Your task to perform on an android device: turn off wifi Image 0: 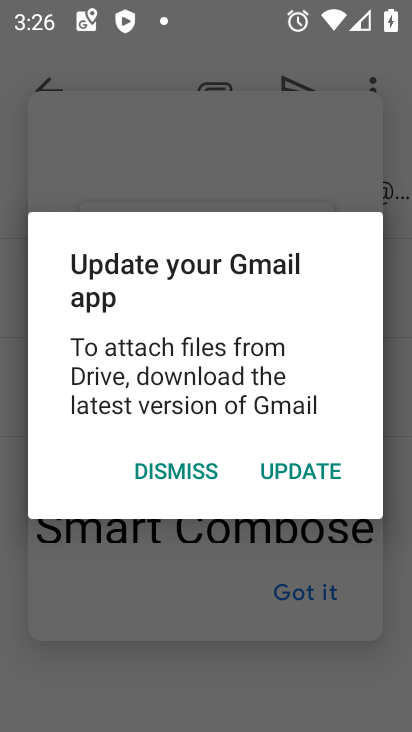
Step 0: click (194, 460)
Your task to perform on an android device: turn off wifi Image 1: 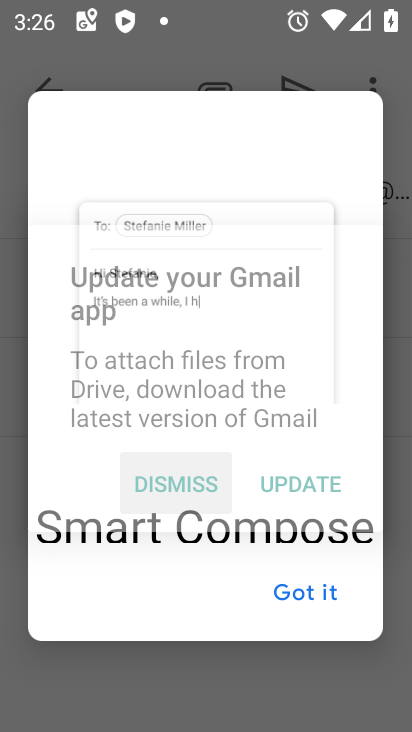
Step 1: click (194, 460)
Your task to perform on an android device: turn off wifi Image 2: 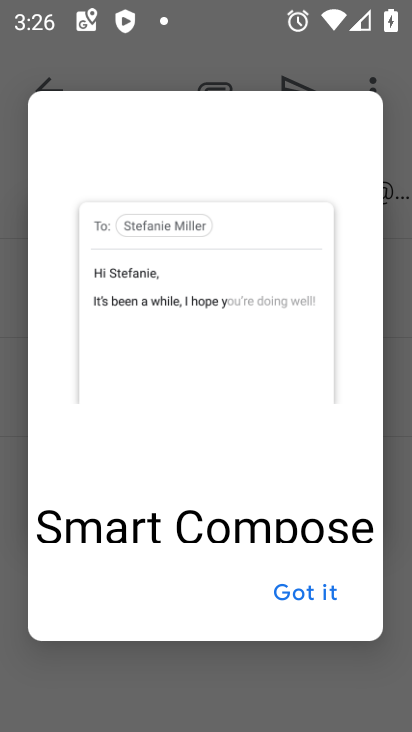
Step 2: click (294, 596)
Your task to perform on an android device: turn off wifi Image 3: 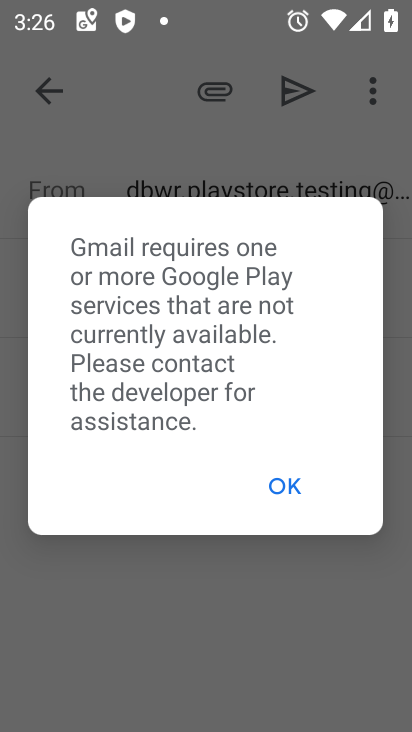
Step 3: click (294, 595)
Your task to perform on an android device: turn off wifi Image 4: 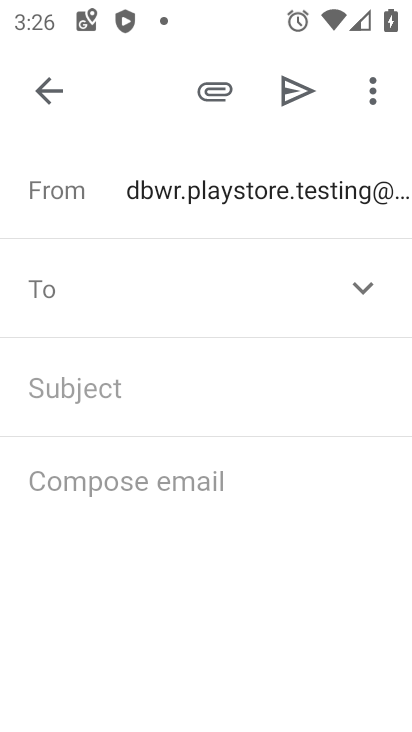
Step 4: click (57, 79)
Your task to perform on an android device: turn off wifi Image 5: 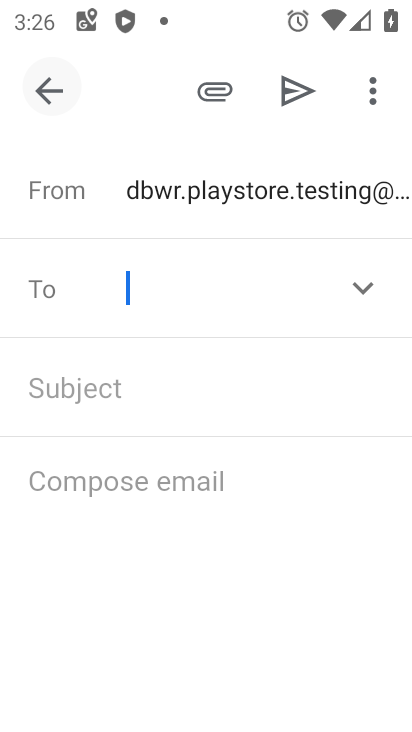
Step 5: click (57, 79)
Your task to perform on an android device: turn off wifi Image 6: 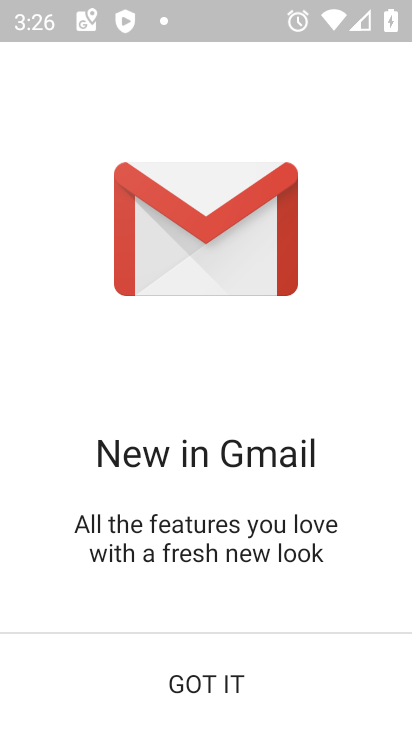
Step 6: press back button
Your task to perform on an android device: turn off wifi Image 7: 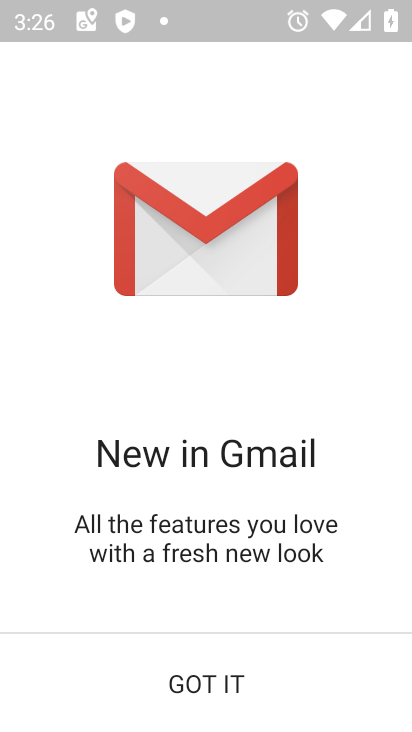
Step 7: press back button
Your task to perform on an android device: turn off wifi Image 8: 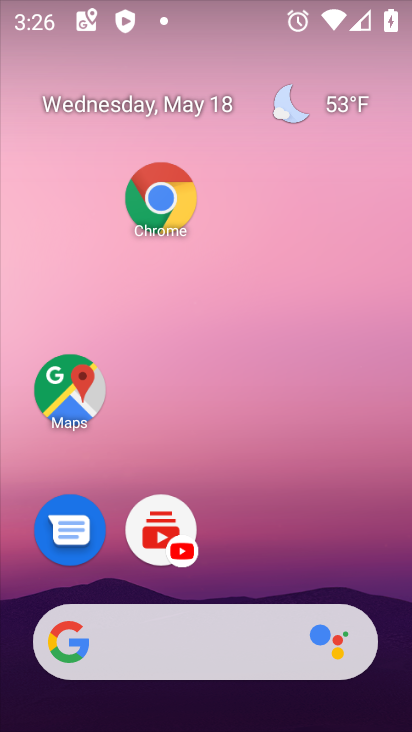
Step 8: press home button
Your task to perform on an android device: turn off wifi Image 9: 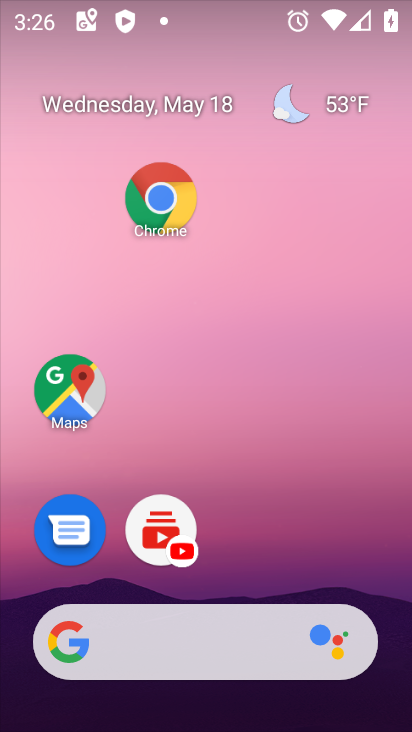
Step 9: drag from (304, 589) to (218, 21)
Your task to perform on an android device: turn off wifi Image 10: 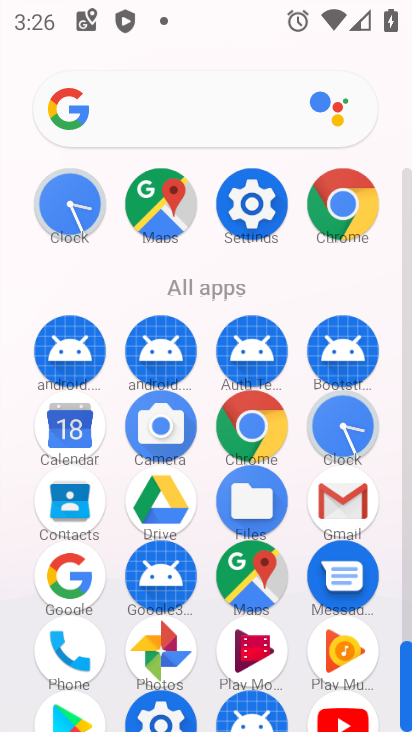
Step 10: click (258, 217)
Your task to perform on an android device: turn off wifi Image 11: 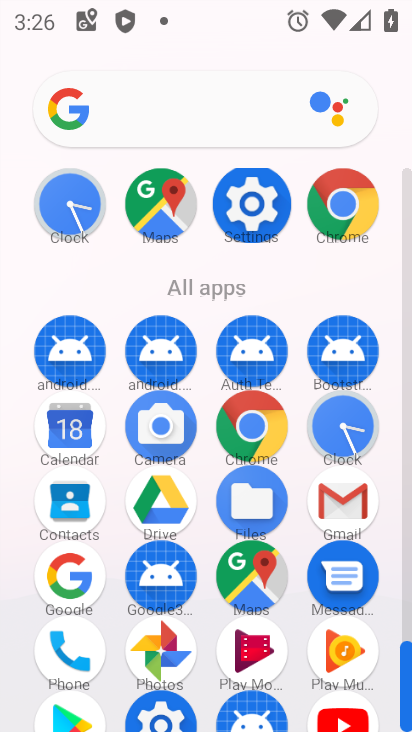
Step 11: click (258, 218)
Your task to perform on an android device: turn off wifi Image 12: 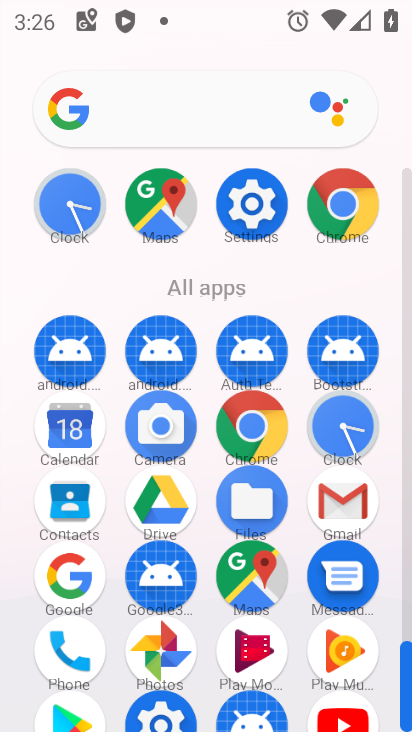
Step 12: click (260, 212)
Your task to perform on an android device: turn off wifi Image 13: 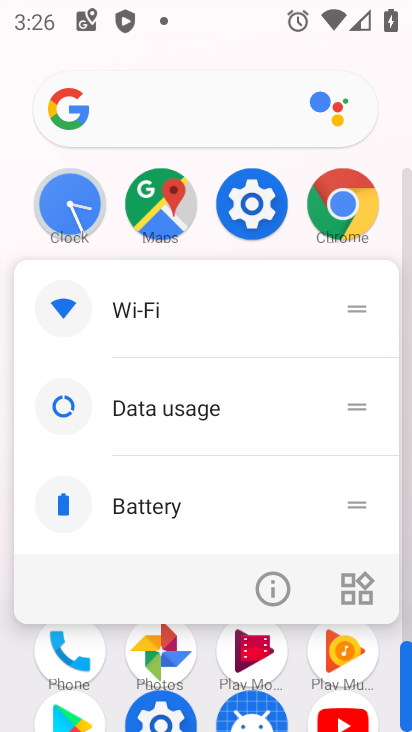
Step 13: click (260, 212)
Your task to perform on an android device: turn off wifi Image 14: 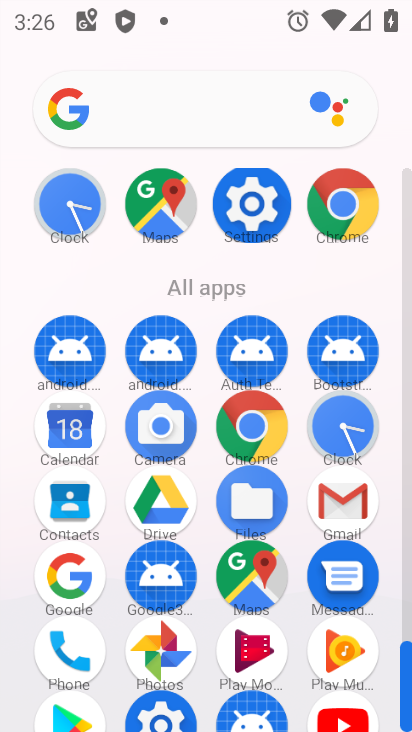
Step 14: click (260, 212)
Your task to perform on an android device: turn off wifi Image 15: 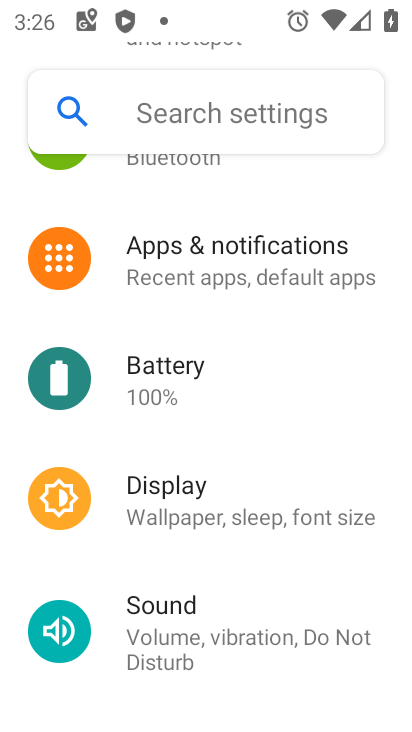
Step 15: click (250, 208)
Your task to perform on an android device: turn off wifi Image 16: 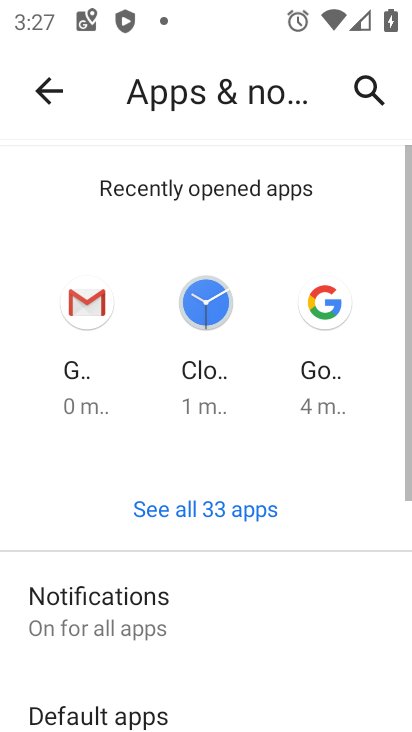
Step 16: click (55, 70)
Your task to perform on an android device: turn off wifi Image 17: 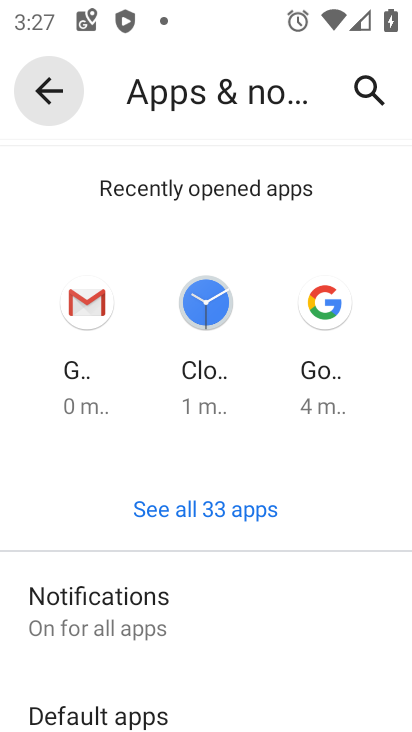
Step 17: click (49, 89)
Your task to perform on an android device: turn off wifi Image 18: 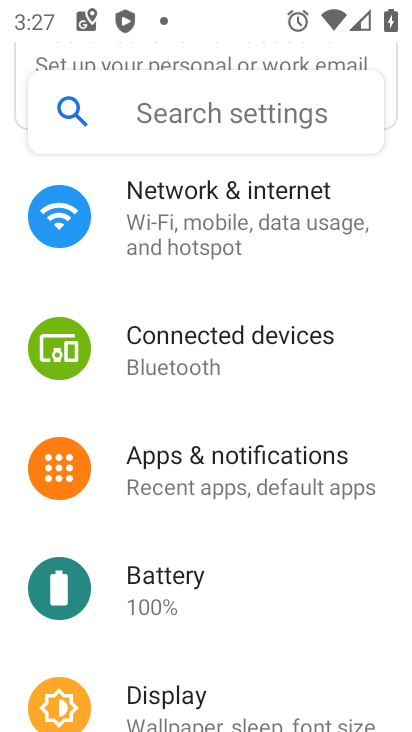
Step 18: click (209, 199)
Your task to perform on an android device: turn off wifi Image 19: 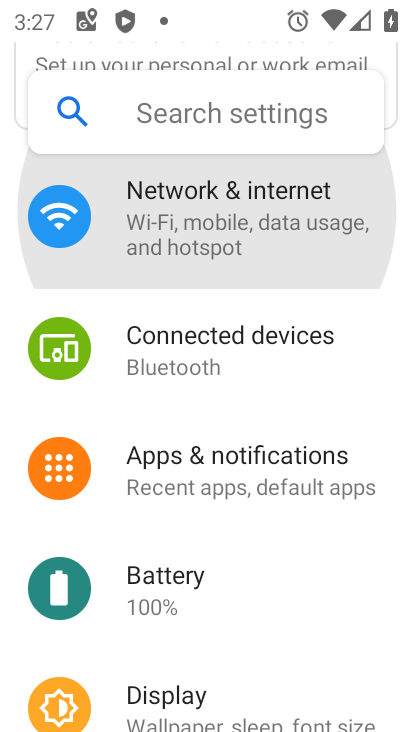
Step 19: click (218, 204)
Your task to perform on an android device: turn off wifi Image 20: 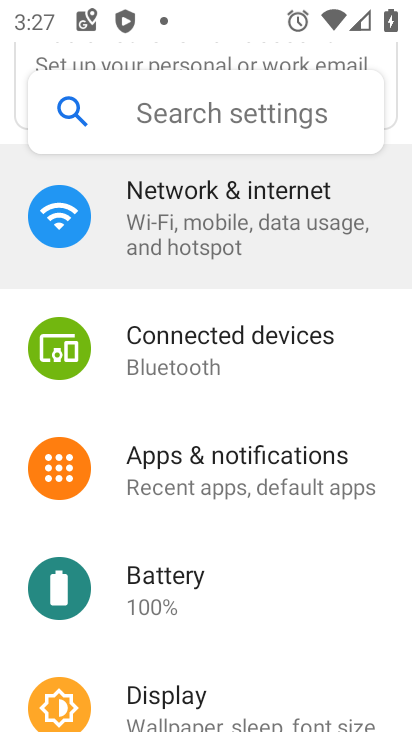
Step 20: click (218, 204)
Your task to perform on an android device: turn off wifi Image 21: 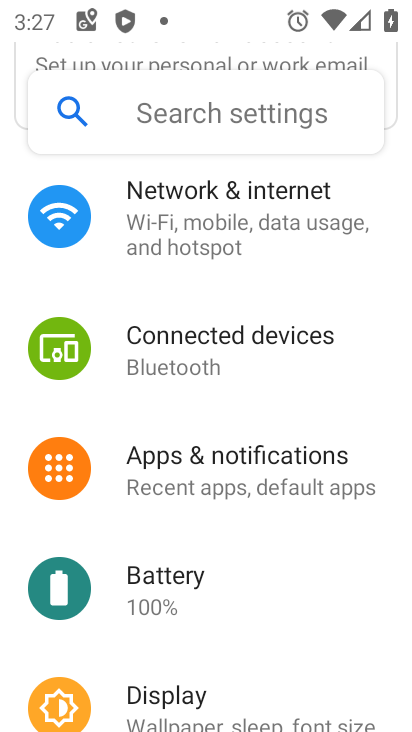
Step 21: click (218, 204)
Your task to perform on an android device: turn off wifi Image 22: 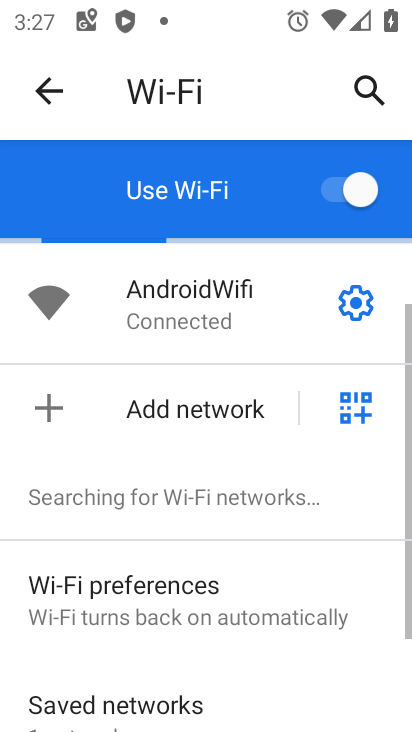
Step 22: drag from (125, 577) to (182, 191)
Your task to perform on an android device: turn off wifi Image 23: 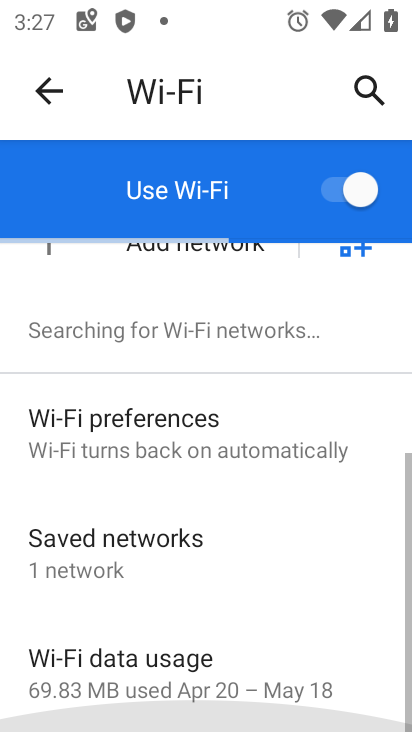
Step 23: drag from (239, 413) to (168, 137)
Your task to perform on an android device: turn off wifi Image 24: 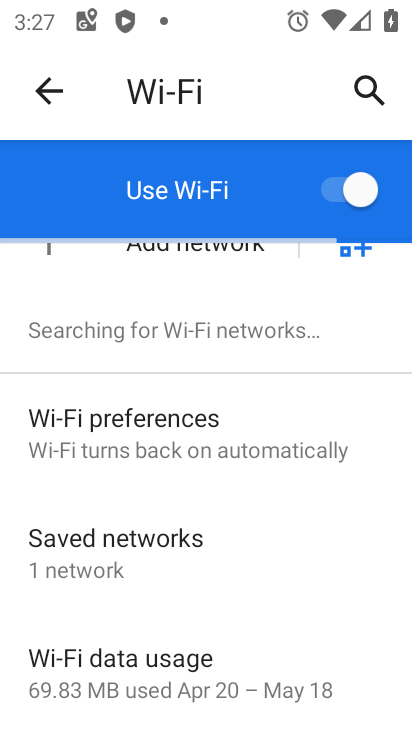
Step 24: click (351, 180)
Your task to perform on an android device: turn off wifi Image 25: 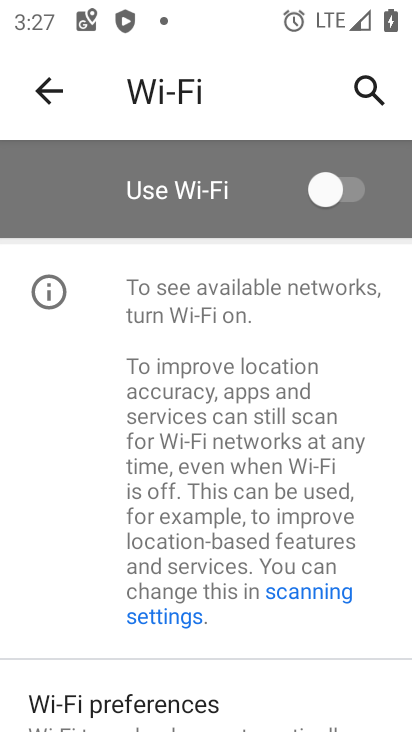
Step 25: task complete